Your task to perform on an android device: Go to calendar. Show me events next week Image 0: 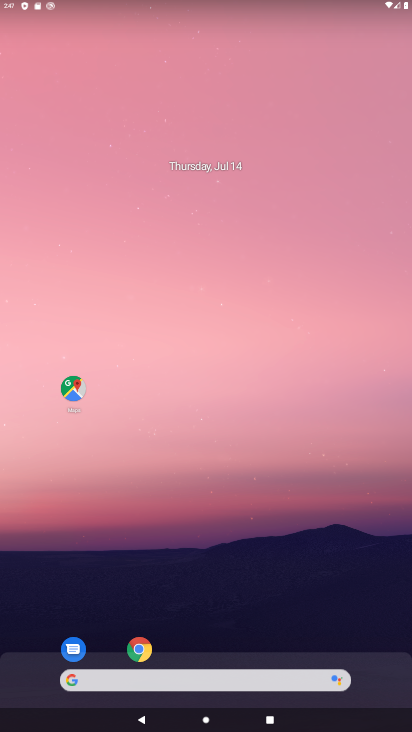
Step 0: drag from (224, 614) to (277, 187)
Your task to perform on an android device: Go to calendar. Show me events next week Image 1: 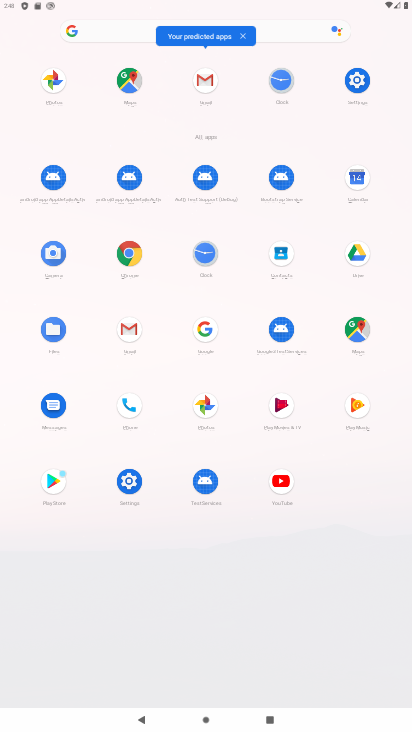
Step 1: click (357, 177)
Your task to perform on an android device: Go to calendar. Show me events next week Image 2: 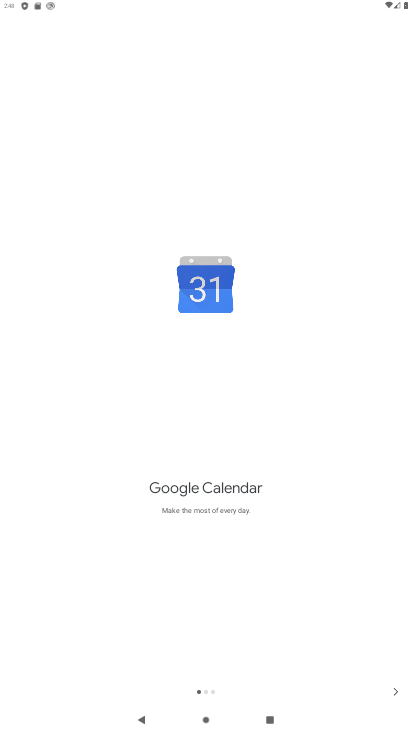
Step 2: click (392, 680)
Your task to perform on an android device: Go to calendar. Show me events next week Image 3: 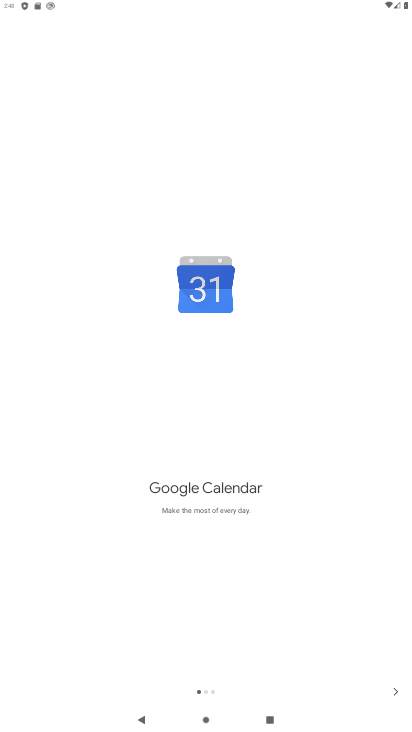
Step 3: click (395, 693)
Your task to perform on an android device: Go to calendar. Show me events next week Image 4: 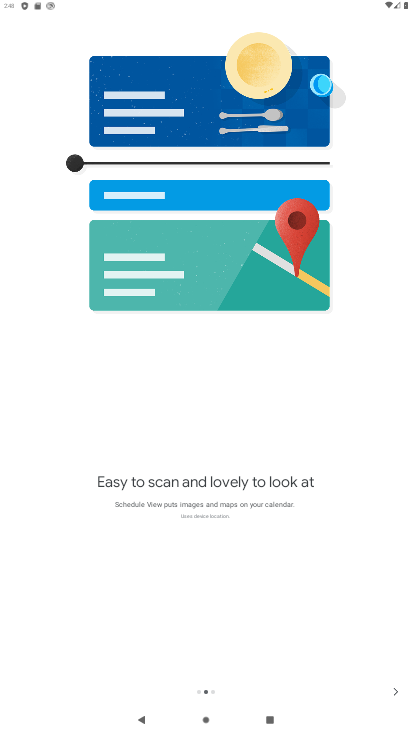
Step 4: click (399, 689)
Your task to perform on an android device: Go to calendar. Show me events next week Image 5: 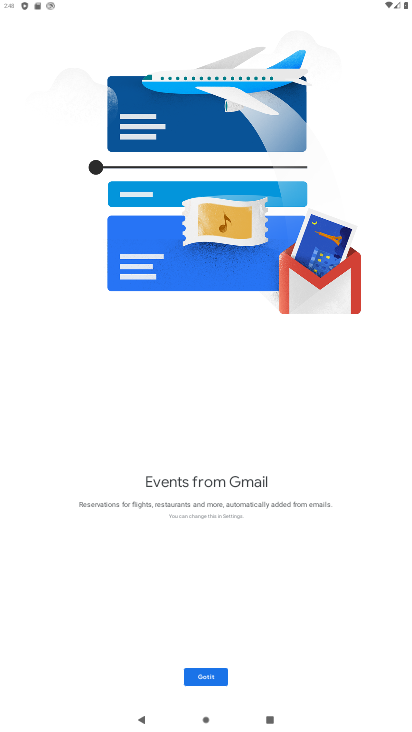
Step 5: click (398, 691)
Your task to perform on an android device: Go to calendar. Show me events next week Image 6: 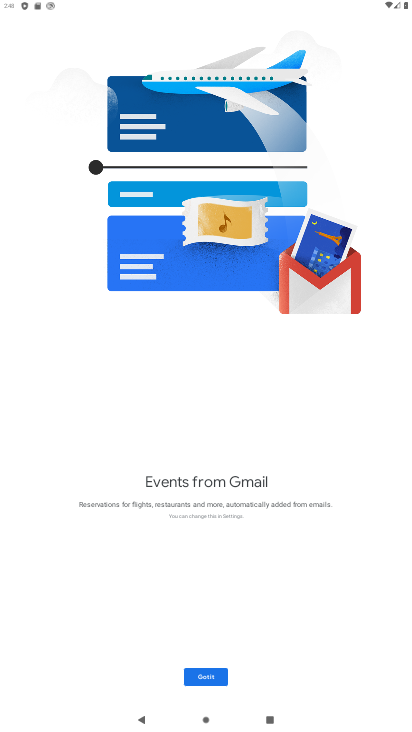
Step 6: click (208, 677)
Your task to perform on an android device: Go to calendar. Show me events next week Image 7: 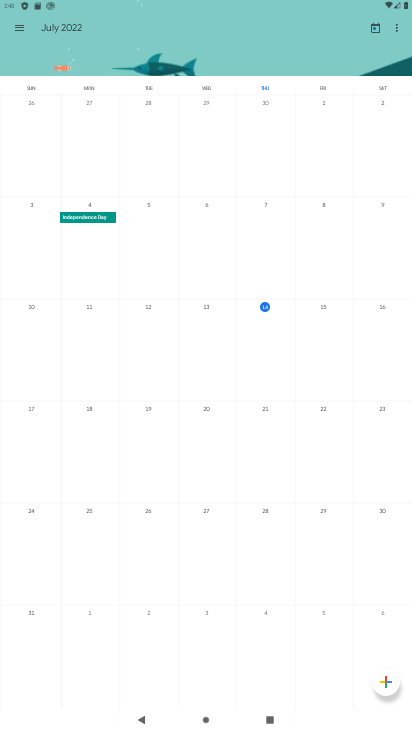
Step 7: click (202, 412)
Your task to perform on an android device: Go to calendar. Show me events next week Image 8: 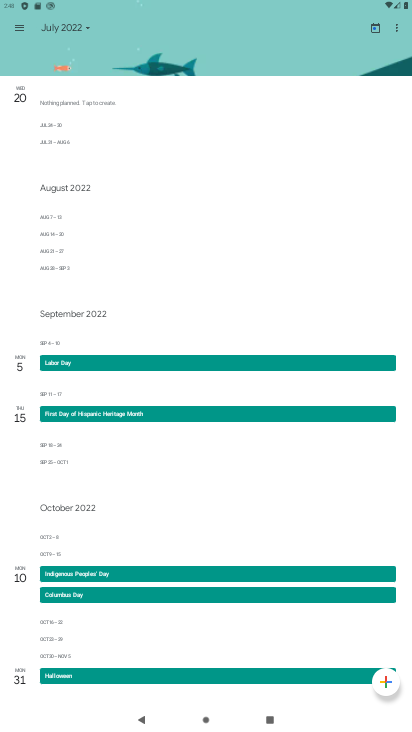
Step 8: task complete